Your task to perform on an android device: Open calendar and show me the second week of next month Image 0: 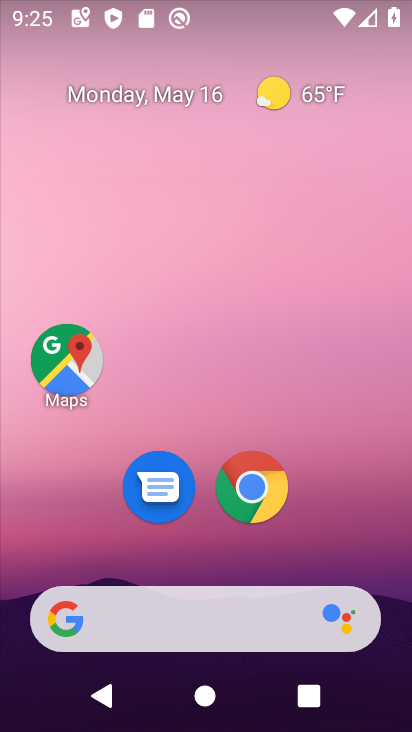
Step 0: drag from (326, 438) to (325, 92)
Your task to perform on an android device: Open calendar and show me the second week of next month Image 1: 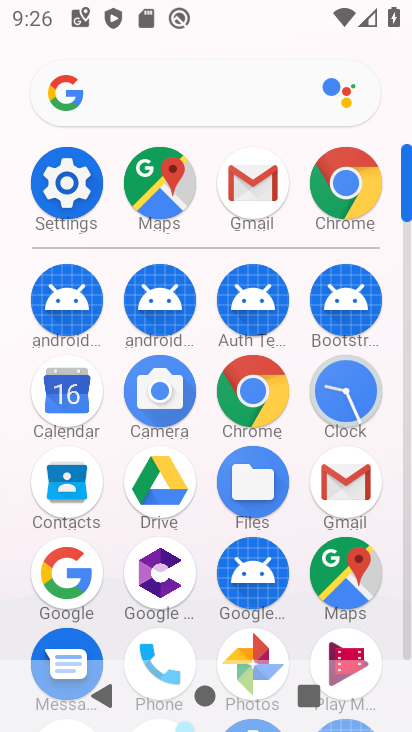
Step 1: click (73, 417)
Your task to perform on an android device: Open calendar and show me the second week of next month Image 2: 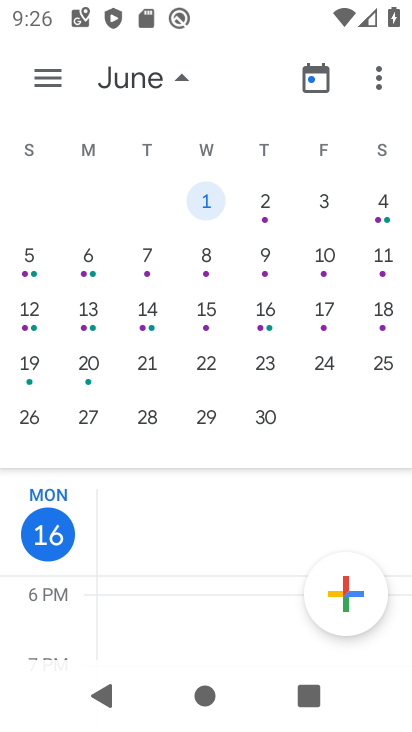
Step 2: click (86, 252)
Your task to perform on an android device: Open calendar and show me the second week of next month Image 3: 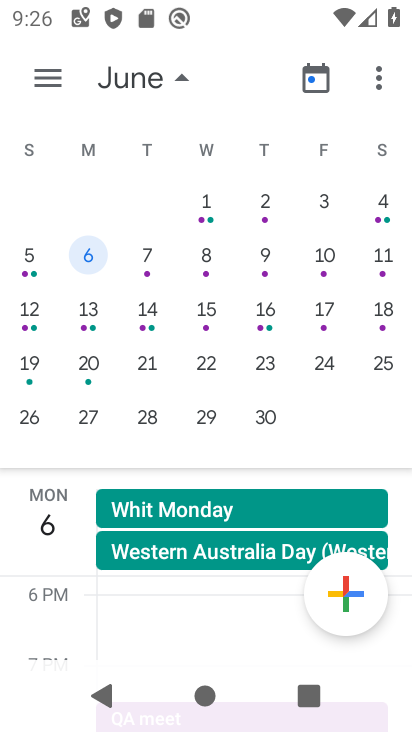
Step 3: task complete